Your task to perform on an android device: uninstall "Grab" Image 0: 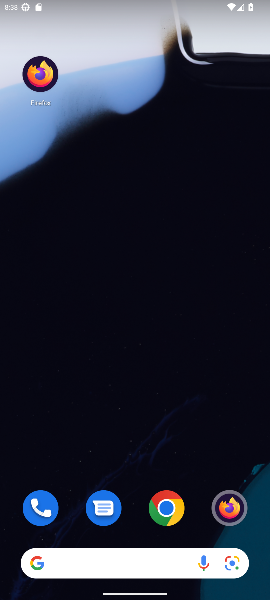
Step 0: drag from (131, 549) to (179, 166)
Your task to perform on an android device: uninstall "Grab" Image 1: 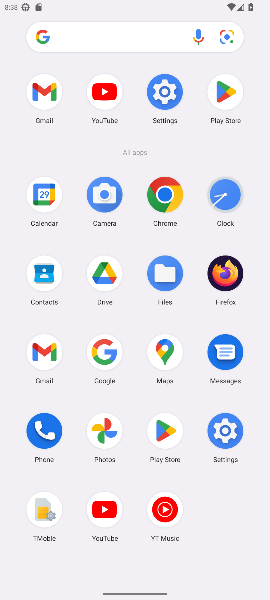
Step 1: click (212, 93)
Your task to perform on an android device: uninstall "Grab" Image 2: 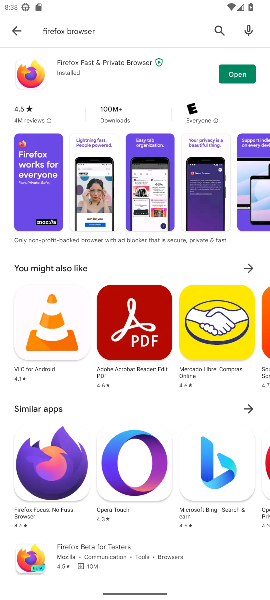
Step 2: click (221, 24)
Your task to perform on an android device: uninstall "Grab" Image 3: 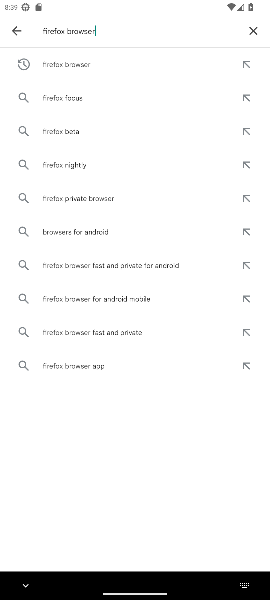
Step 3: click (252, 34)
Your task to perform on an android device: uninstall "Grab" Image 4: 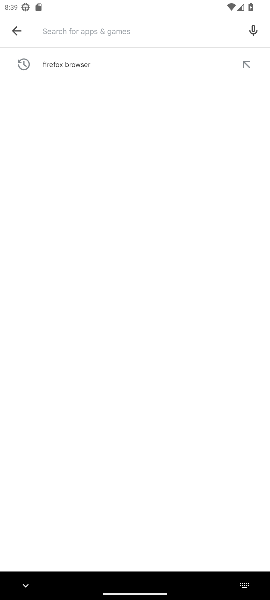
Step 4: type "grab"
Your task to perform on an android device: uninstall "Grab" Image 5: 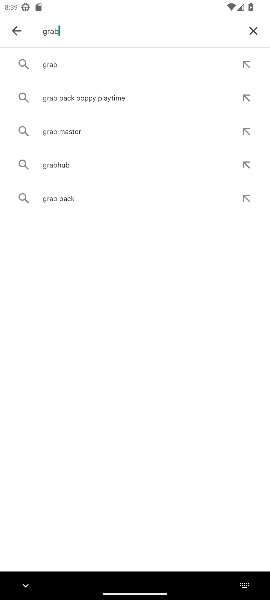
Step 5: click (53, 69)
Your task to perform on an android device: uninstall "Grab" Image 6: 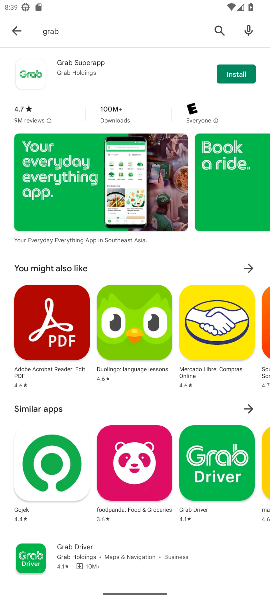
Step 6: task complete